Your task to perform on an android device: allow cookies in the chrome app Image 0: 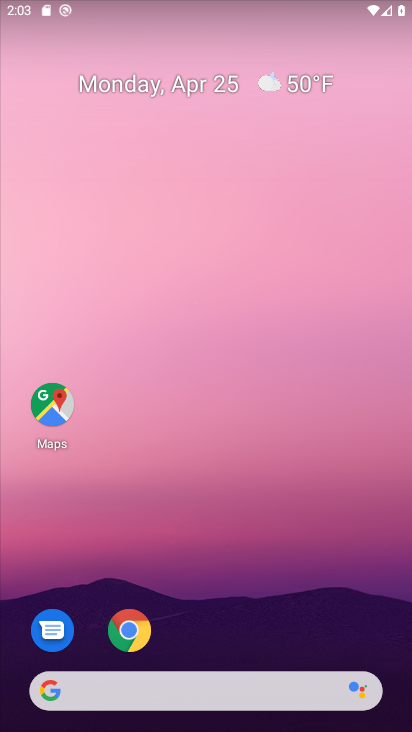
Step 0: click (129, 620)
Your task to perform on an android device: allow cookies in the chrome app Image 1: 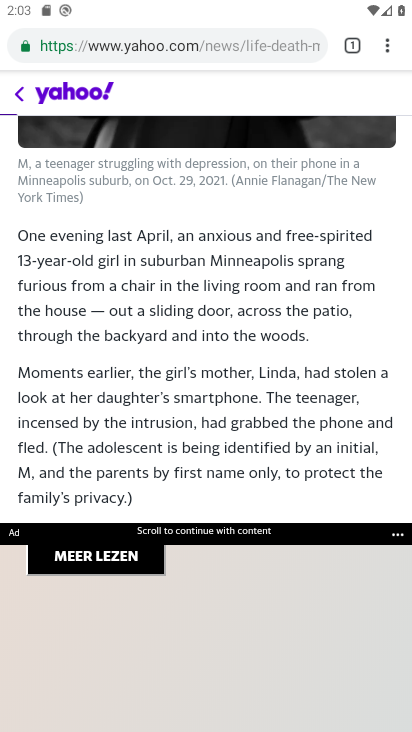
Step 1: click (389, 41)
Your task to perform on an android device: allow cookies in the chrome app Image 2: 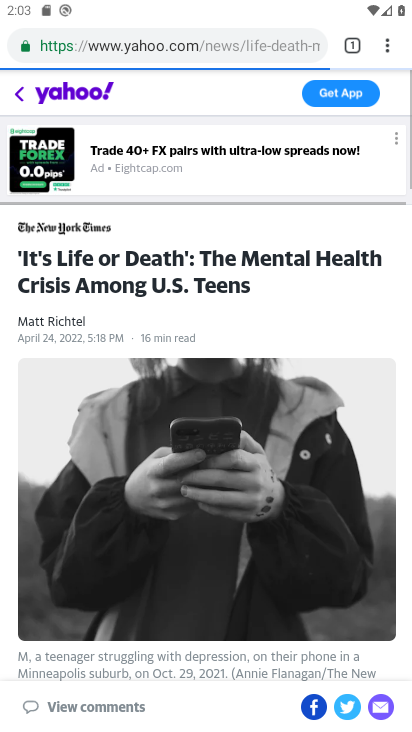
Step 2: click (389, 41)
Your task to perform on an android device: allow cookies in the chrome app Image 3: 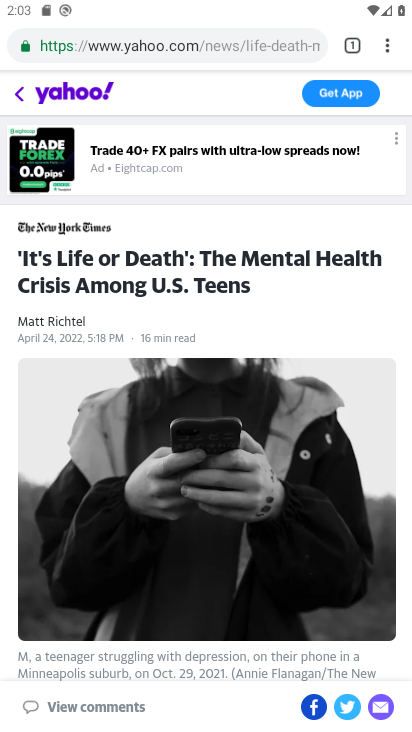
Step 3: click (378, 41)
Your task to perform on an android device: allow cookies in the chrome app Image 4: 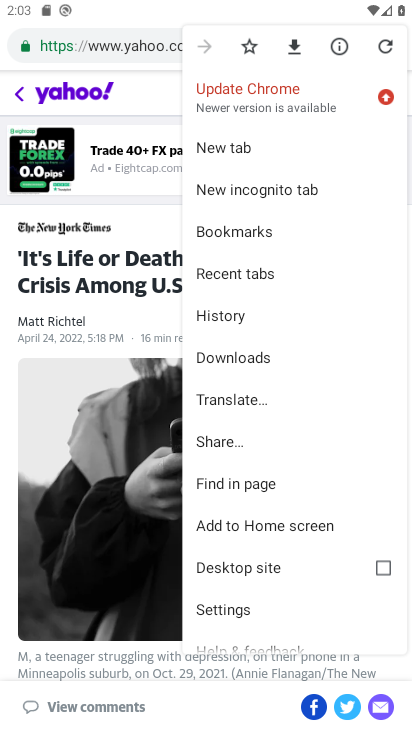
Step 4: click (231, 603)
Your task to perform on an android device: allow cookies in the chrome app Image 5: 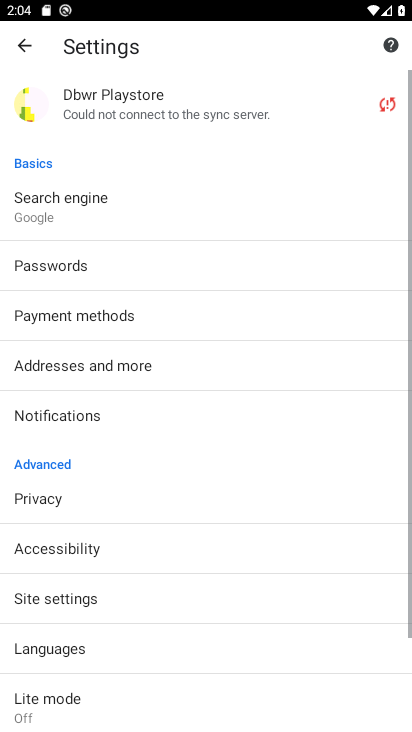
Step 5: drag from (231, 603) to (242, 323)
Your task to perform on an android device: allow cookies in the chrome app Image 6: 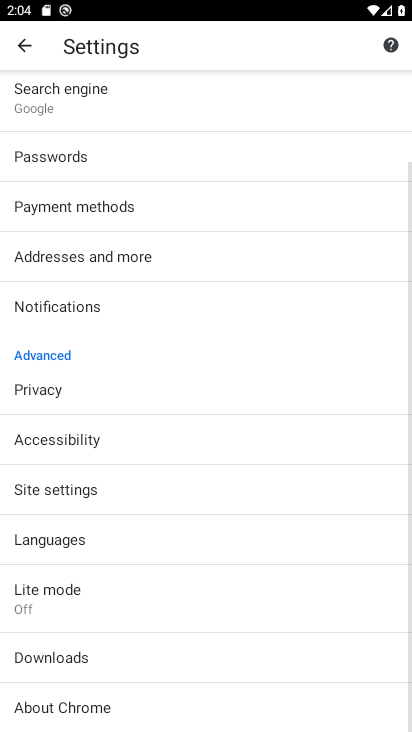
Step 6: click (121, 499)
Your task to perform on an android device: allow cookies in the chrome app Image 7: 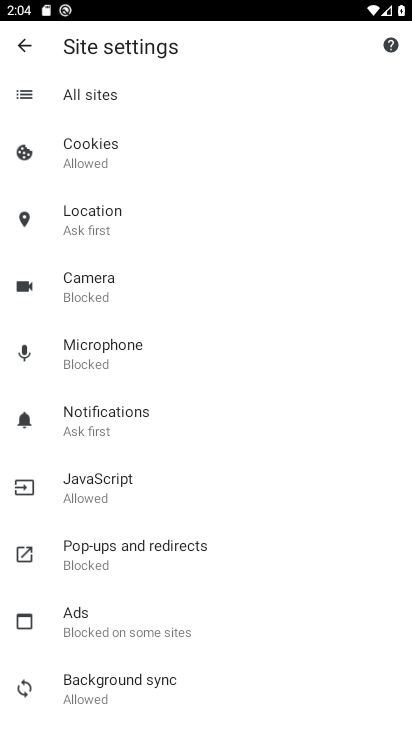
Step 7: click (165, 166)
Your task to perform on an android device: allow cookies in the chrome app Image 8: 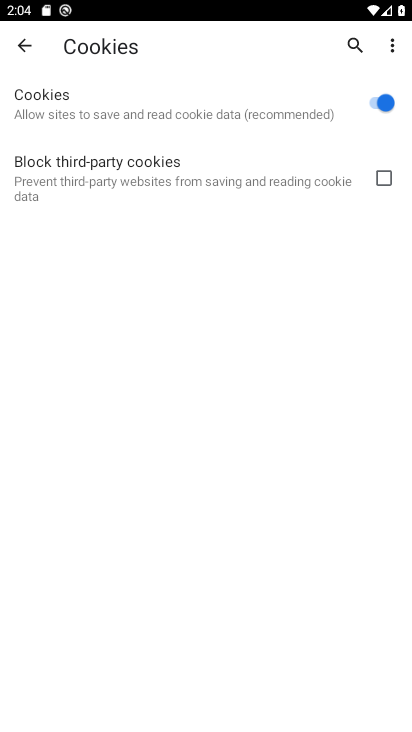
Step 8: task complete